Your task to perform on an android device: Go to Android settings Image 0: 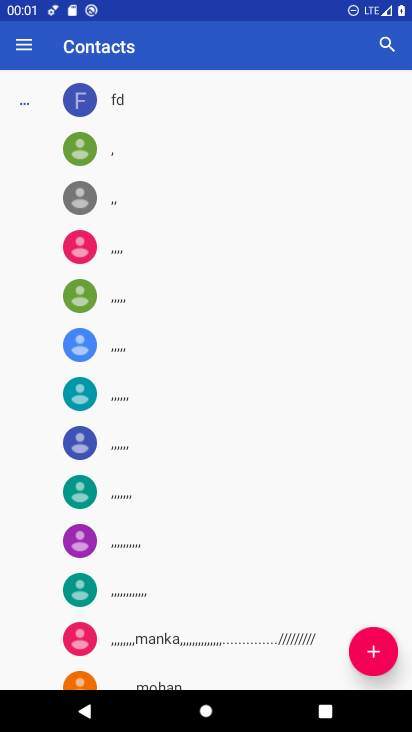
Step 0: press home button
Your task to perform on an android device: Go to Android settings Image 1: 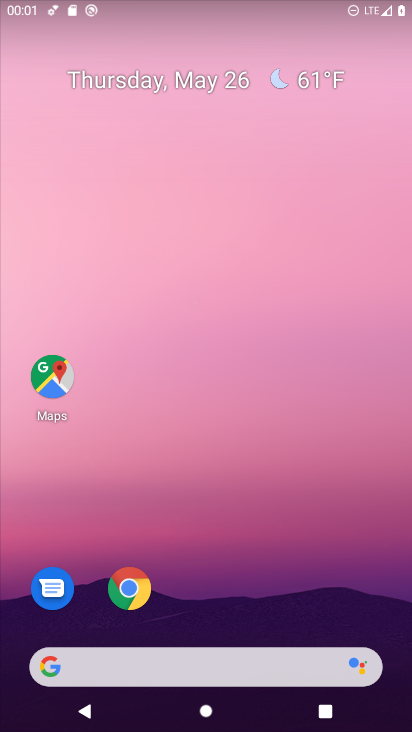
Step 1: drag from (220, 536) to (113, 158)
Your task to perform on an android device: Go to Android settings Image 2: 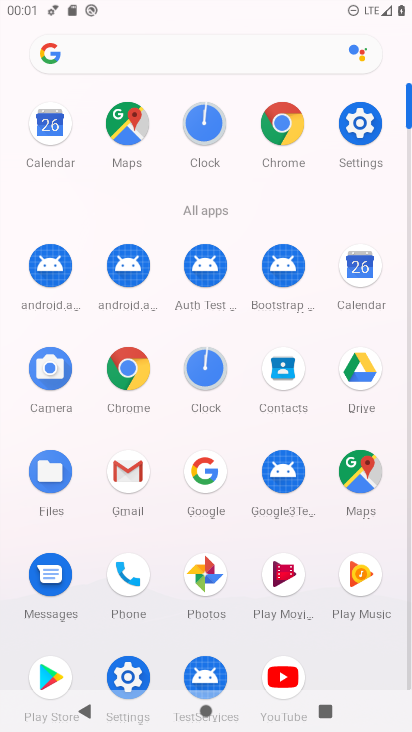
Step 2: click (370, 117)
Your task to perform on an android device: Go to Android settings Image 3: 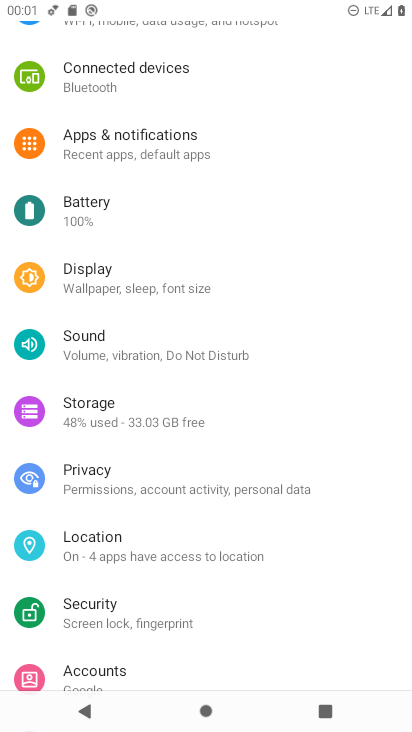
Step 3: task complete